Your task to perform on an android device: turn off location Image 0: 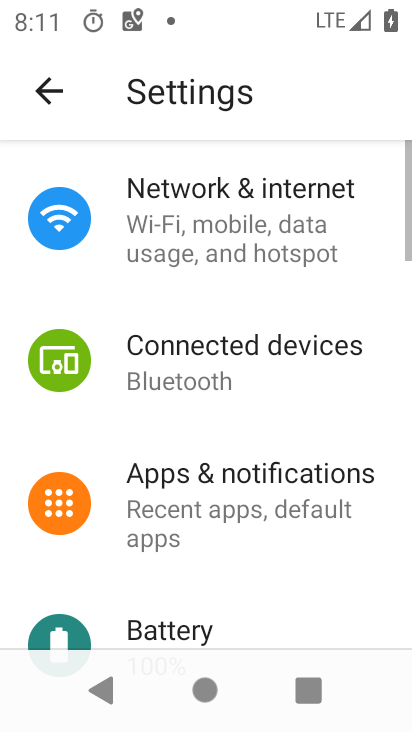
Step 0: drag from (199, 604) to (247, 292)
Your task to perform on an android device: turn off location Image 1: 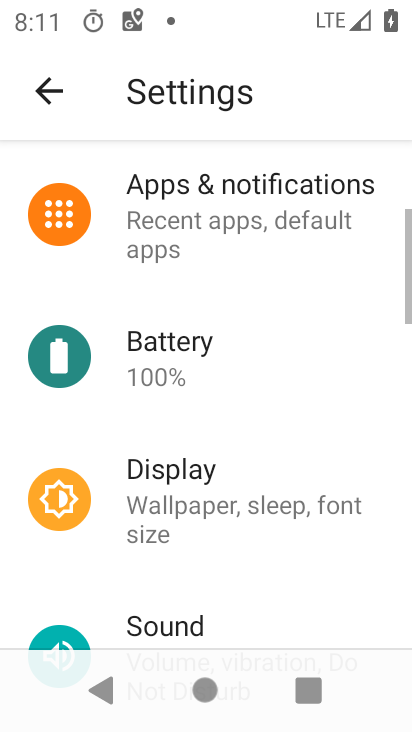
Step 1: drag from (222, 596) to (342, 211)
Your task to perform on an android device: turn off location Image 2: 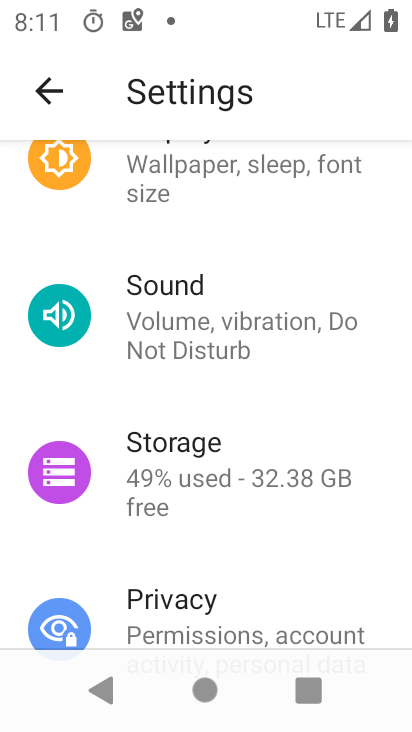
Step 2: drag from (199, 561) to (218, 217)
Your task to perform on an android device: turn off location Image 3: 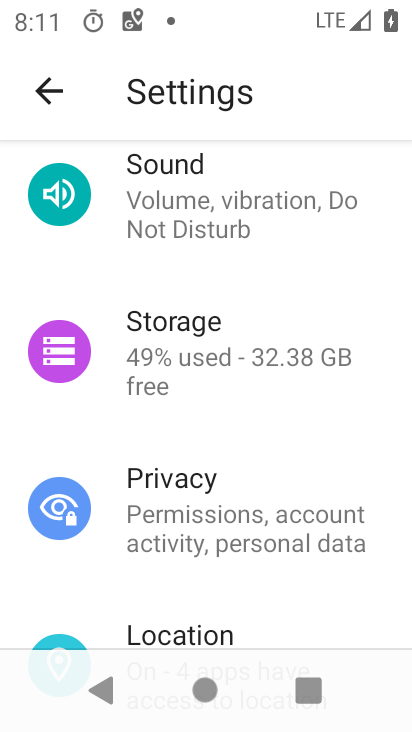
Step 3: drag from (214, 581) to (219, 240)
Your task to perform on an android device: turn off location Image 4: 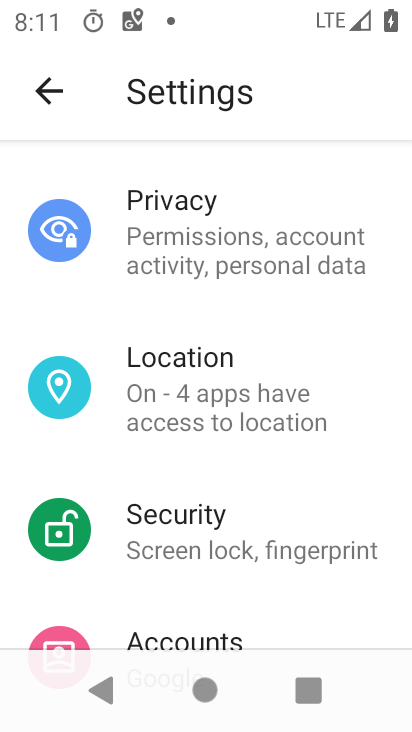
Step 4: click (197, 377)
Your task to perform on an android device: turn off location Image 5: 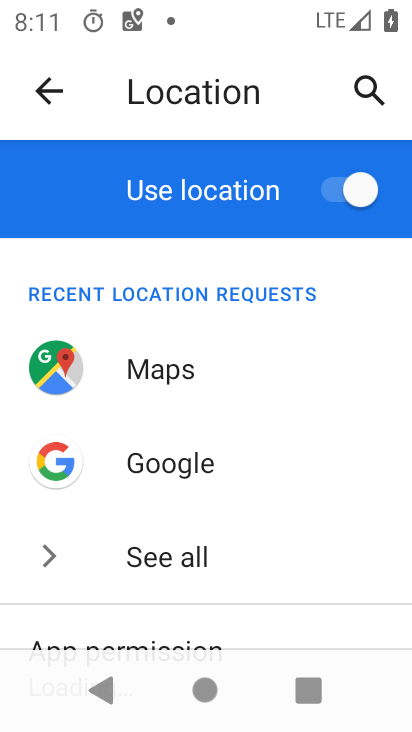
Step 5: click (355, 184)
Your task to perform on an android device: turn off location Image 6: 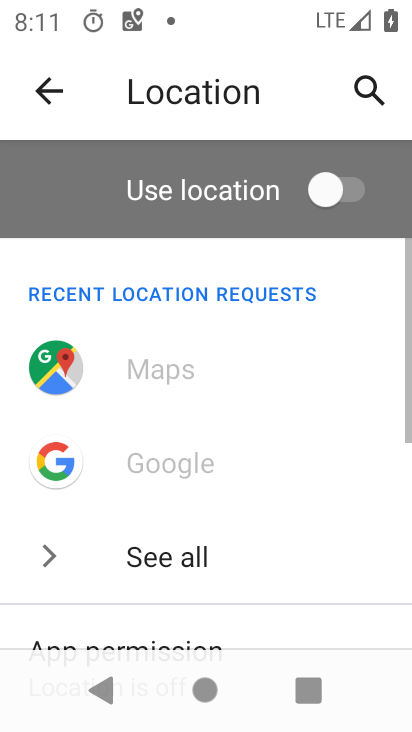
Step 6: task complete